Your task to perform on an android device: toggle javascript in the chrome app Image 0: 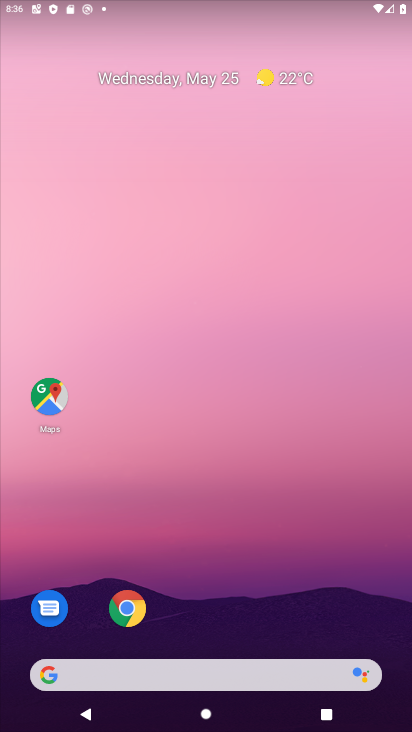
Step 0: click (127, 611)
Your task to perform on an android device: toggle javascript in the chrome app Image 1: 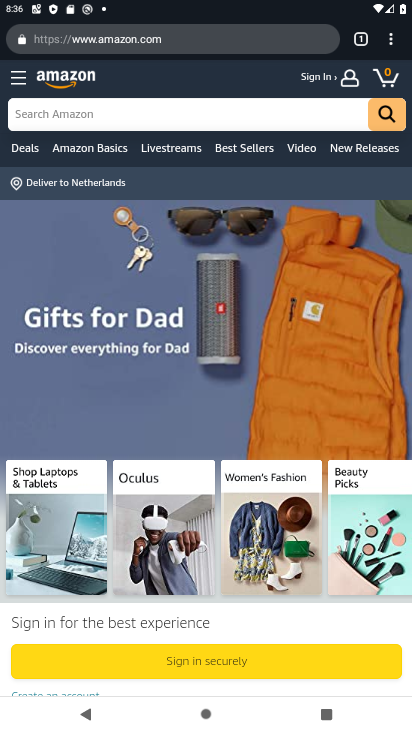
Step 1: click (392, 40)
Your task to perform on an android device: toggle javascript in the chrome app Image 2: 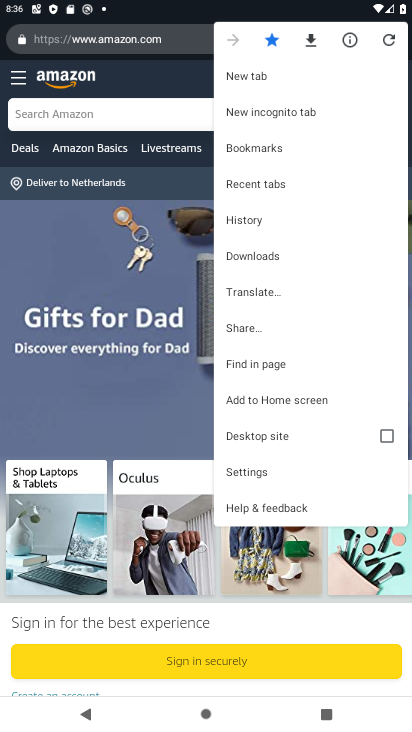
Step 2: click (255, 474)
Your task to perform on an android device: toggle javascript in the chrome app Image 3: 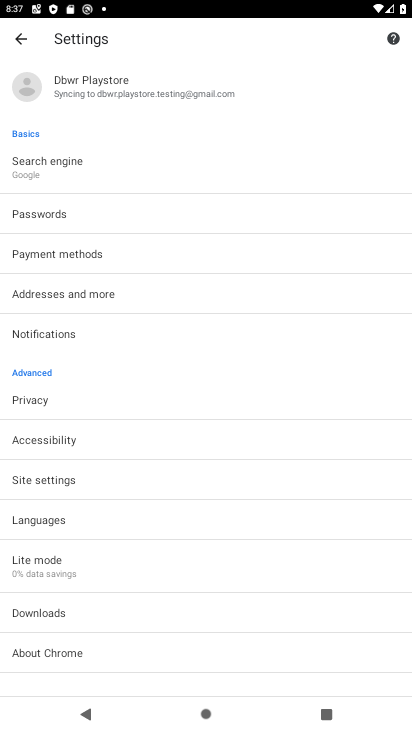
Step 3: click (54, 480)
Your task to perform on an android device: toggle javascript in the chrome app Image 4: 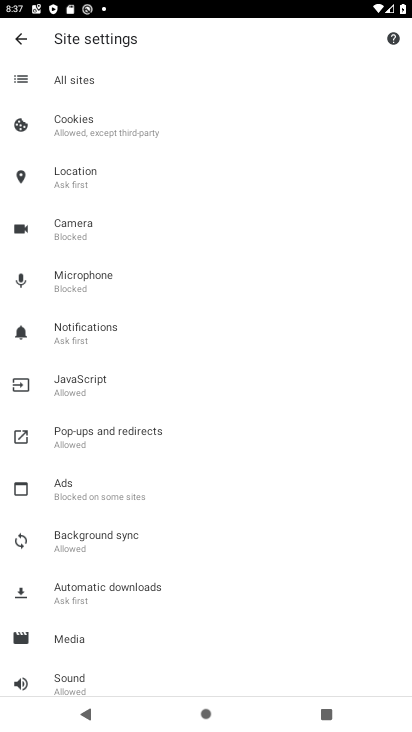
Step 4: click (78, 389)
Your task to perform on an android device: toggle javascript in the chrome app Image 5: 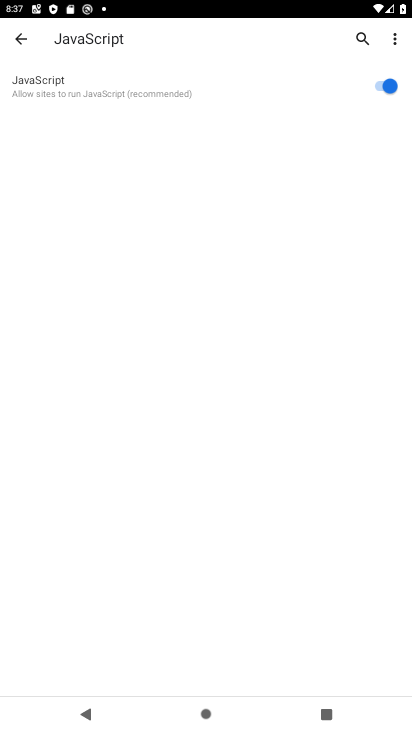
Step 5: click (390, 83)
Your task to perform on an android device: toggle javascript in the chrome app Image 6: 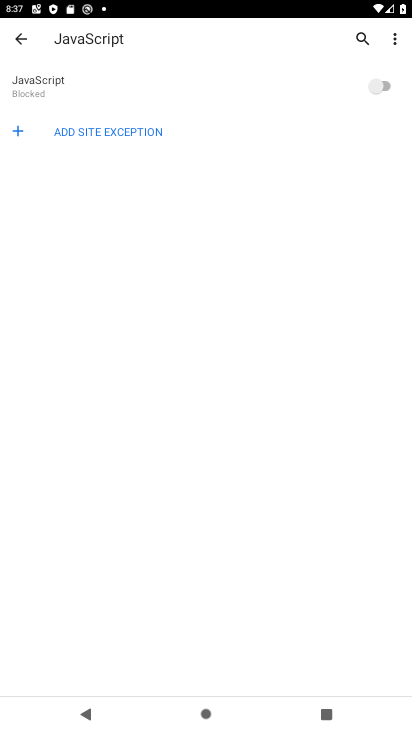
Step 6: task complete